Your task to perform on an android device: Go to accessibility settings Image 0: 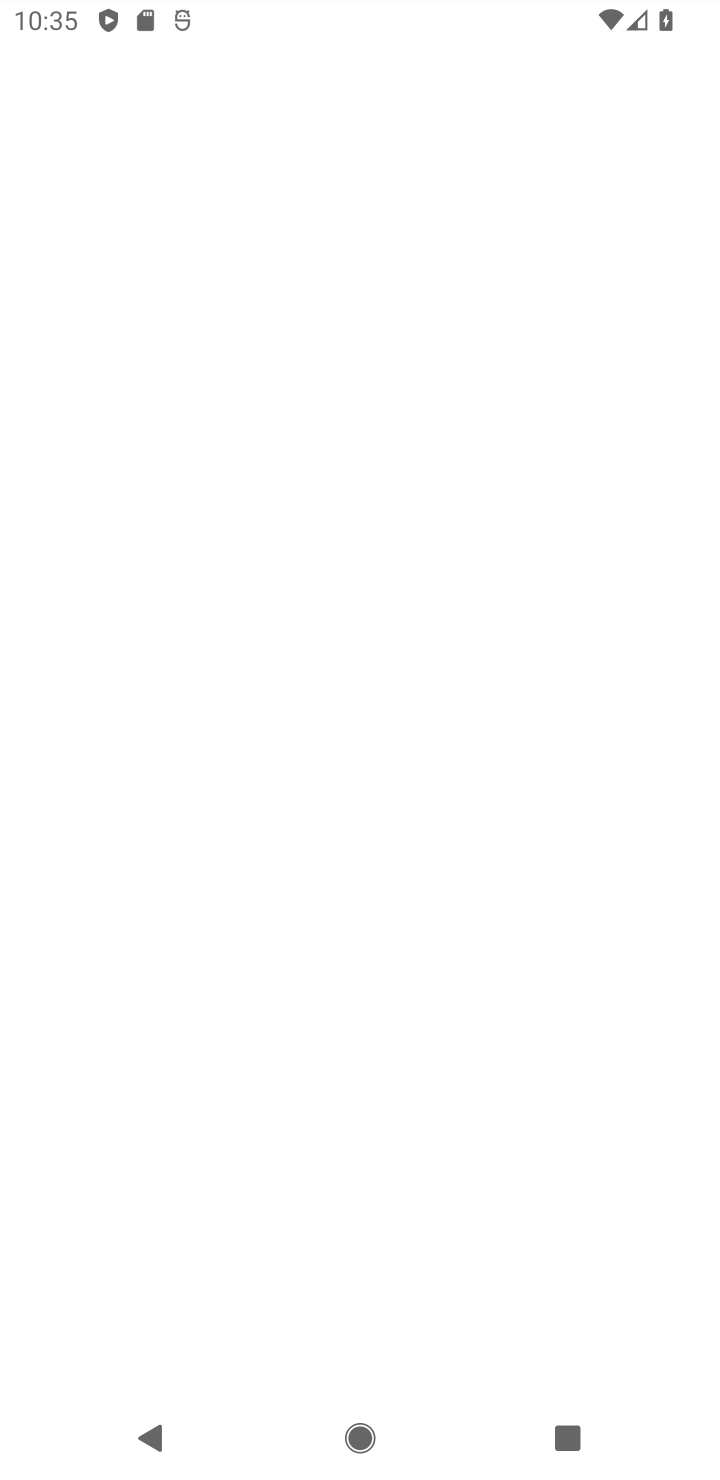
Step 0: press home button
Your task to perform on an android device: Go to accessibility settings Image 1: 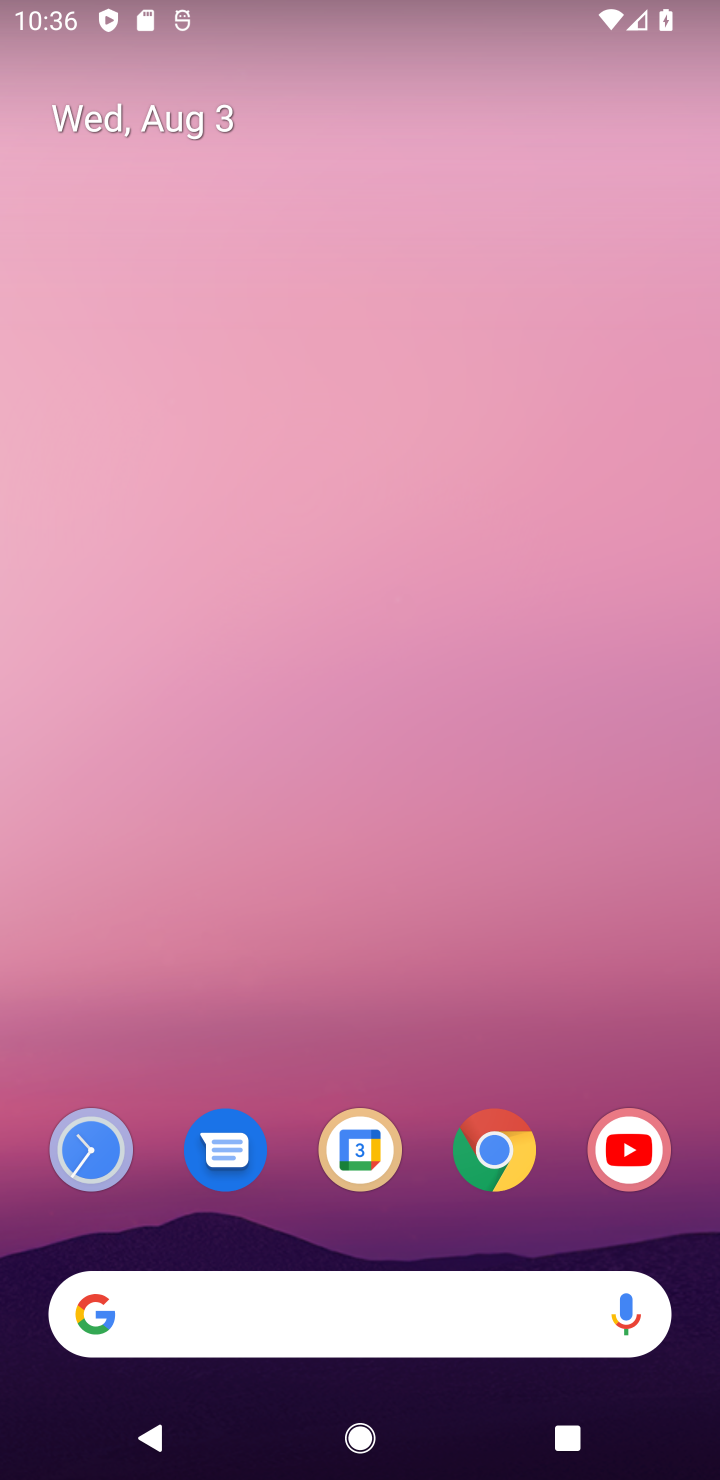
Step 1: drag from (551, 972) to (591, 248)
Your task to perform on an android device: Go to accessibility settings Image 2: 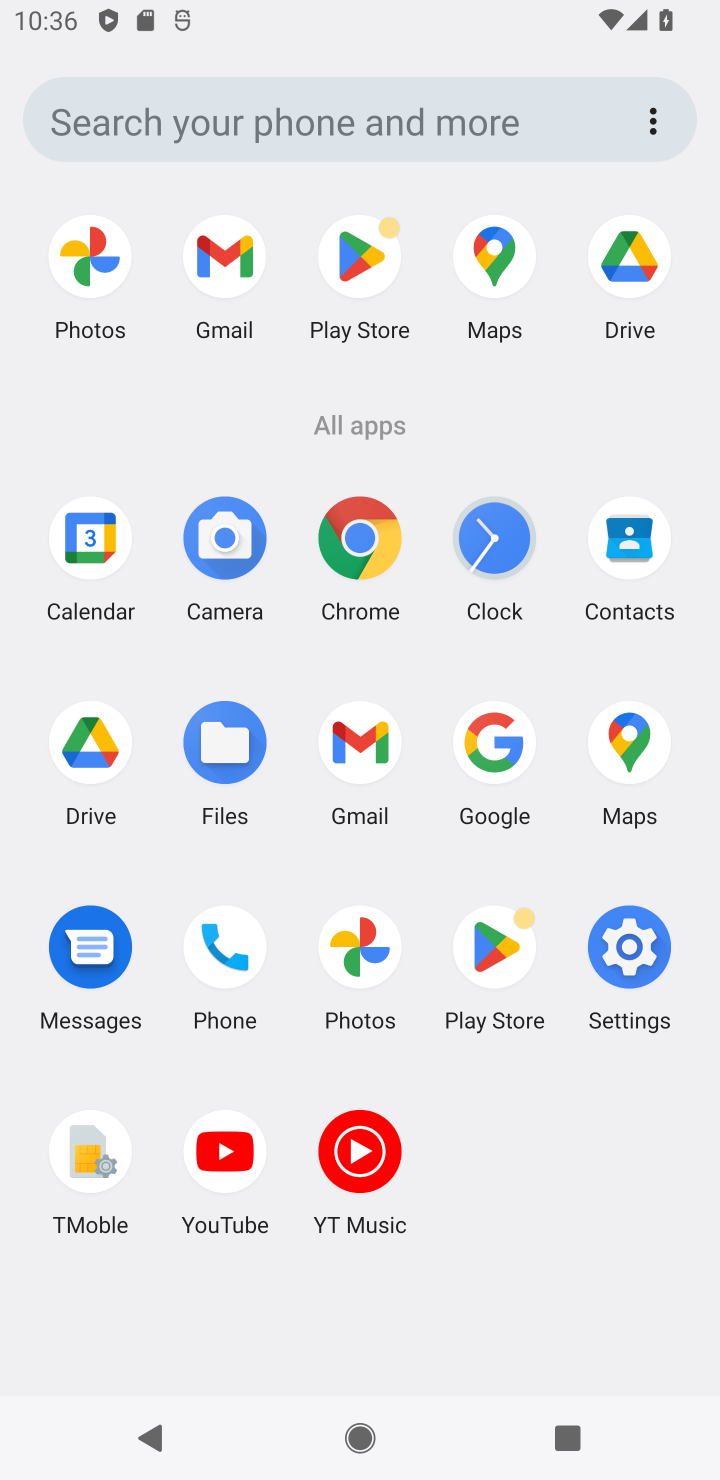
Step 2: click (628, 959)
Your task to perform on an android device: Go to accessibility settings Image 3: 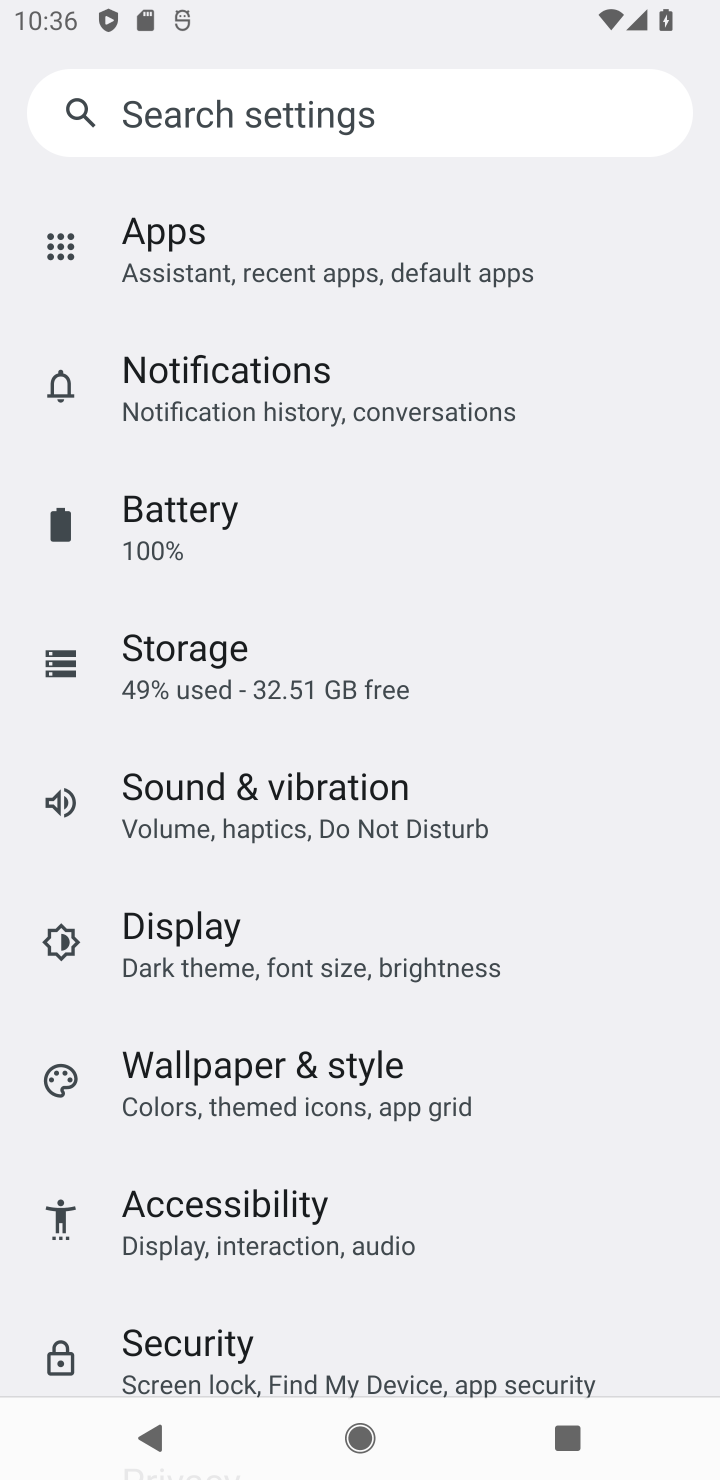
Step 3: drag from (621, 555) to (613, 915)
Your task to perform on an android device: Go to accessibility settings Image 4: 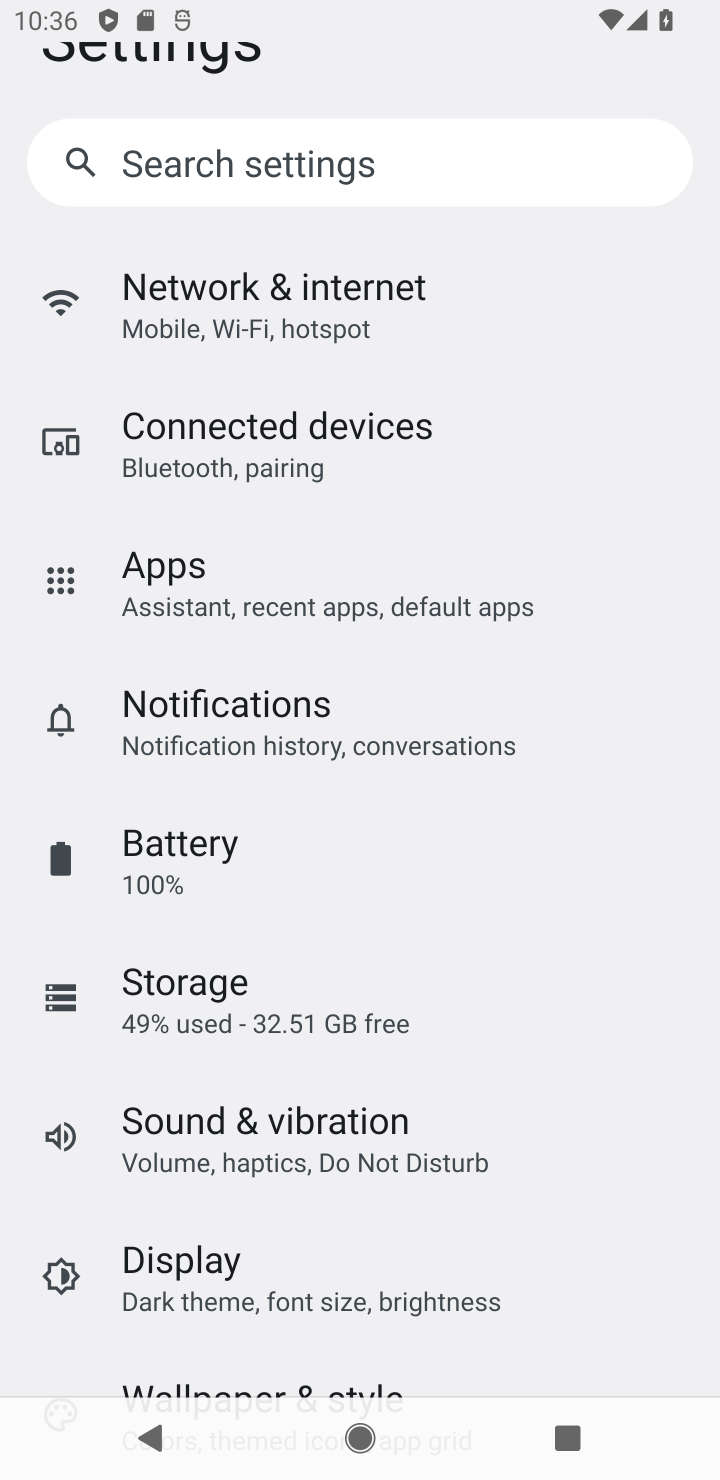
Step 4: drag from (611, 372) to (650, 958)
Your task to perform on an android device: Go to accessibility settings Image 5: 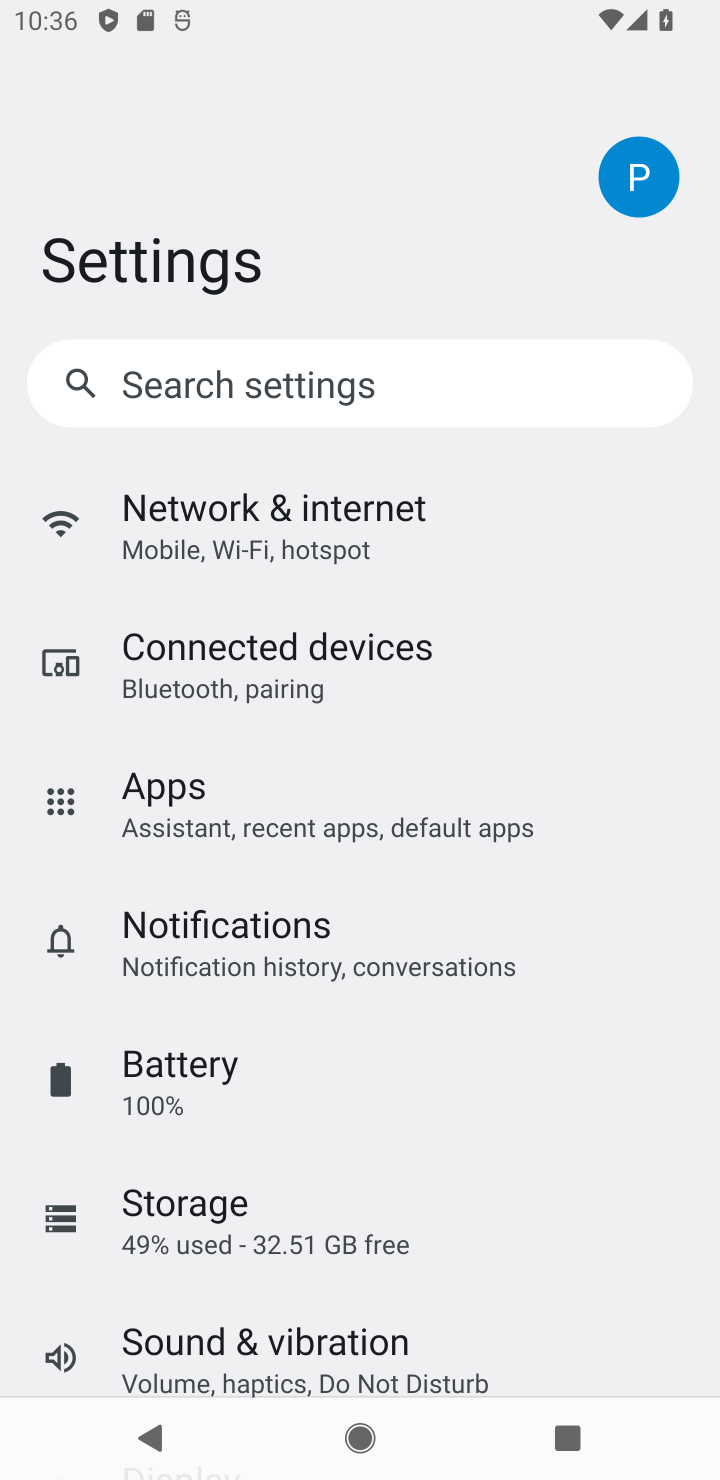
Step 5: drag from (593, 1189) to (605, 920)
Your task to perform on an android device: Go to accessibility settings Image 6: 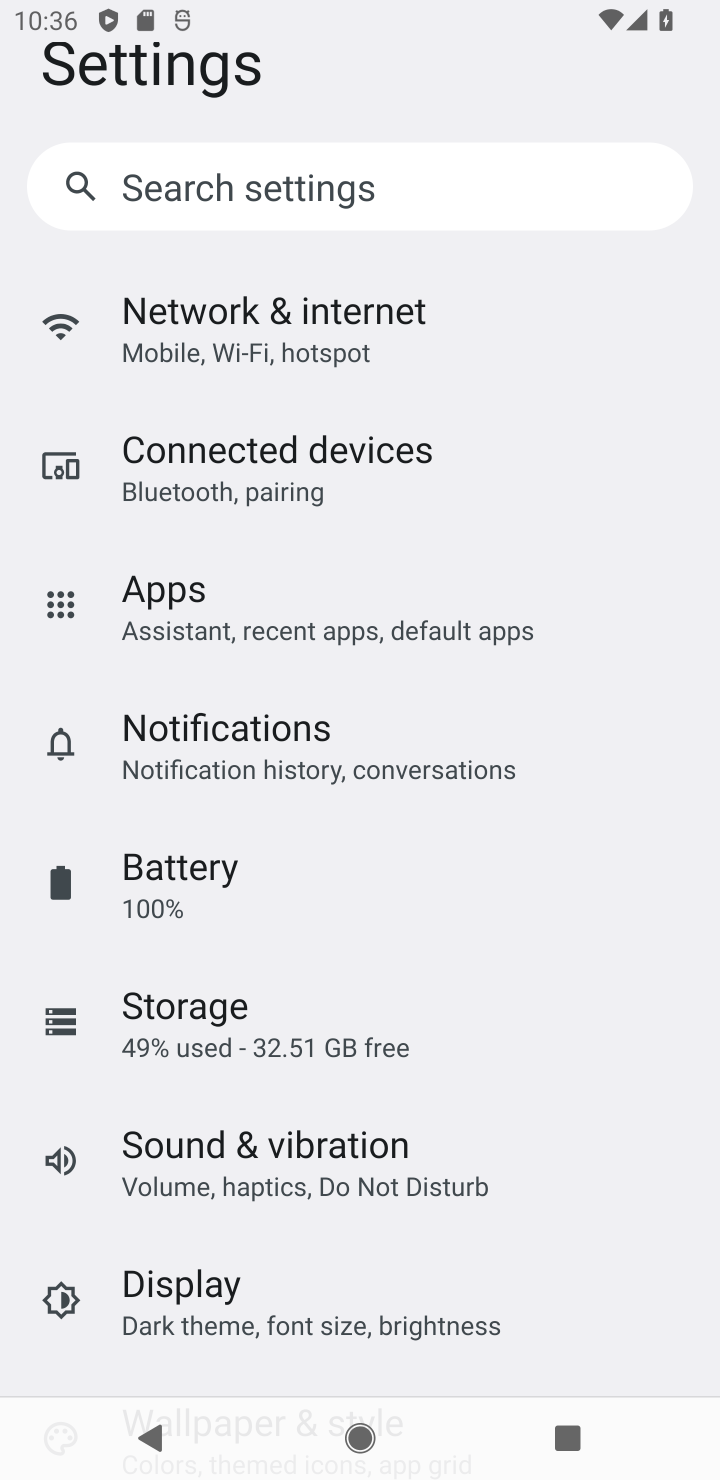
Step 6: drag from (609, 1140) to (626, 707)
Your task to perform on an android device: Go to accessibility settings Image 7: 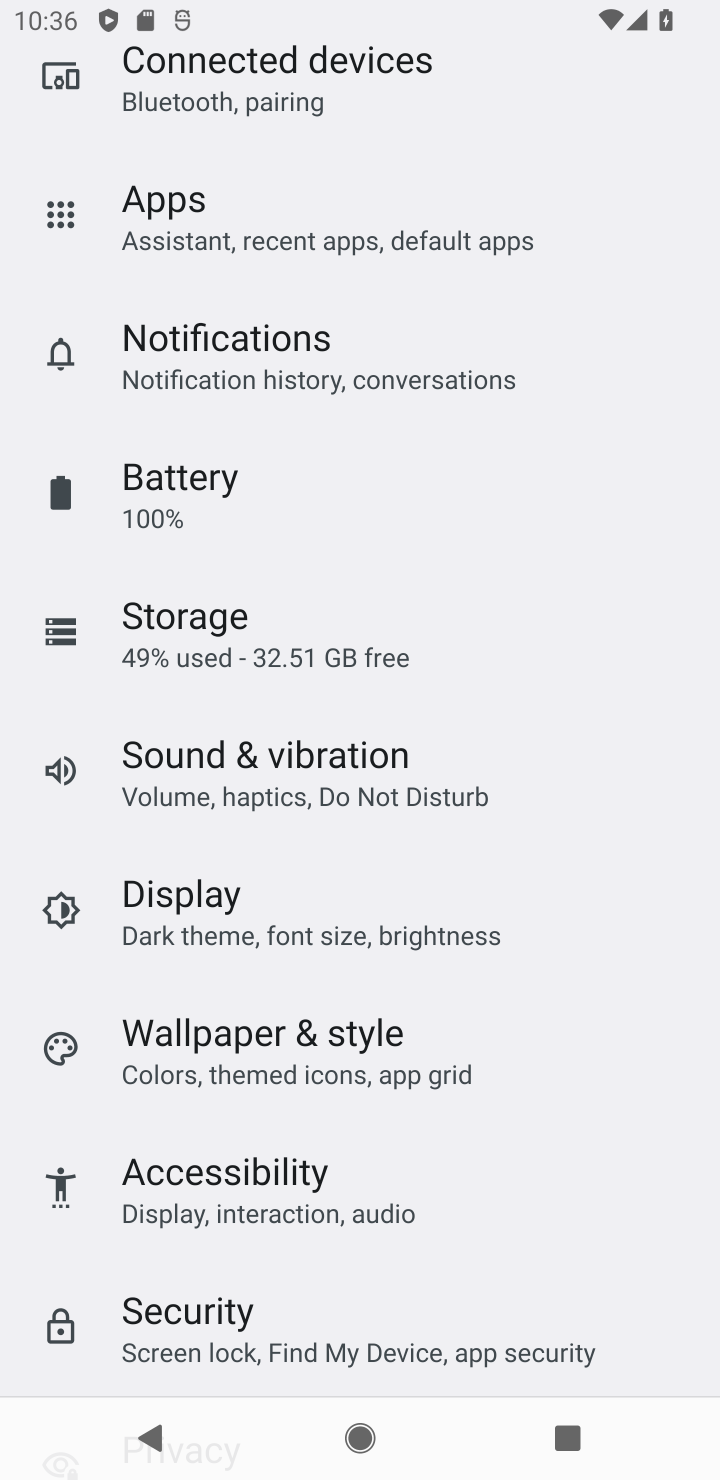
Step 7: drag from (572, 989) to (581, 597)
Your task to perform on an android device: Go to accessibility settings Image 8: 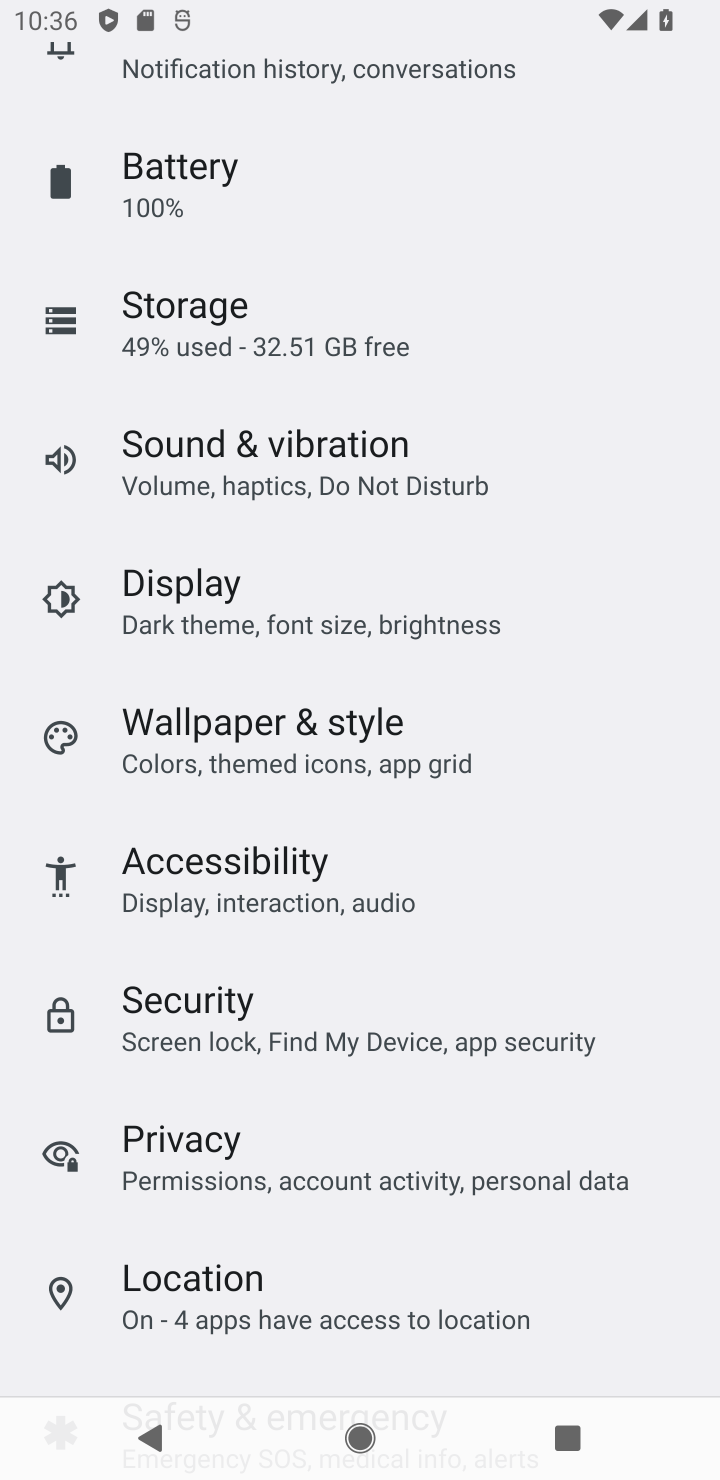
Step 8: click (396, 885)
Your task to perform on an android device: Go to accessibility settings Image 9: 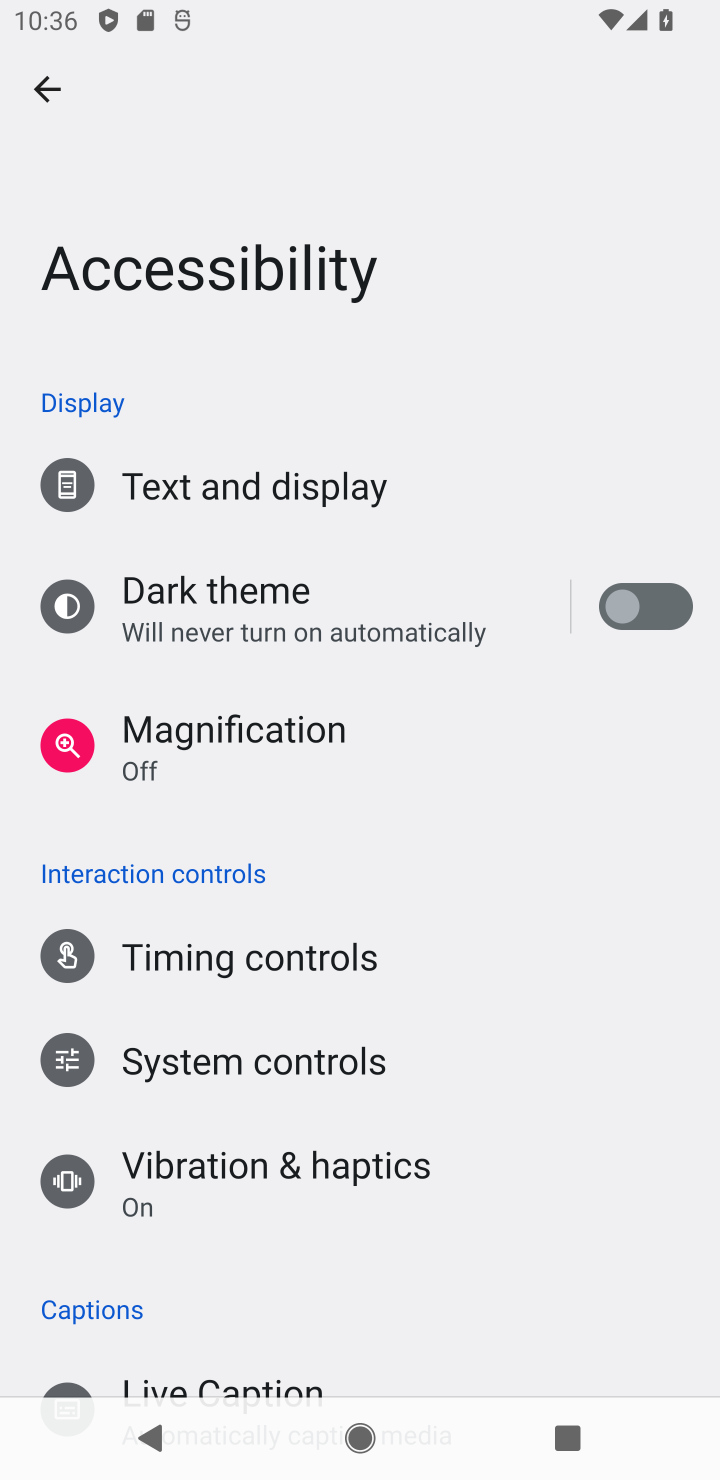
Step 9: task complete